Your task to perform on an android device: allow notifications from all sites in the chrome app Image 0: 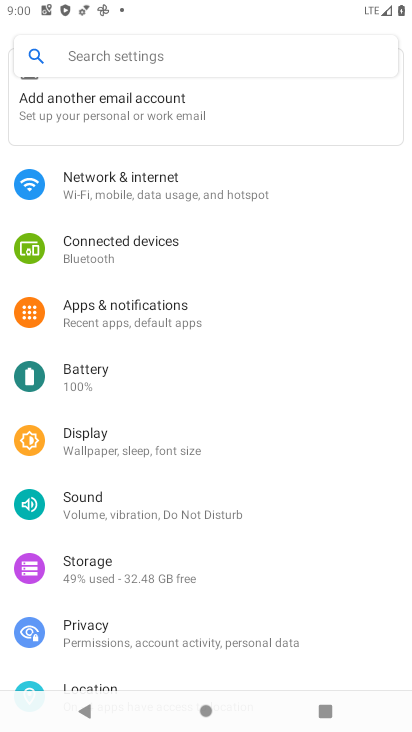
Step 0: click (167, 318)
Your task to perform on an android device: allow notifications from all sites in the chrome app Image 1: 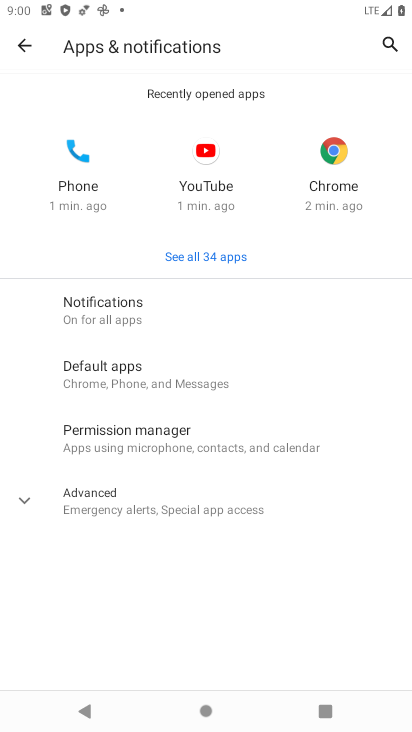
Step 1: click (336, 147)
Your task to perform on an android device: allow notifications from all sites in the chrome app Image 2: 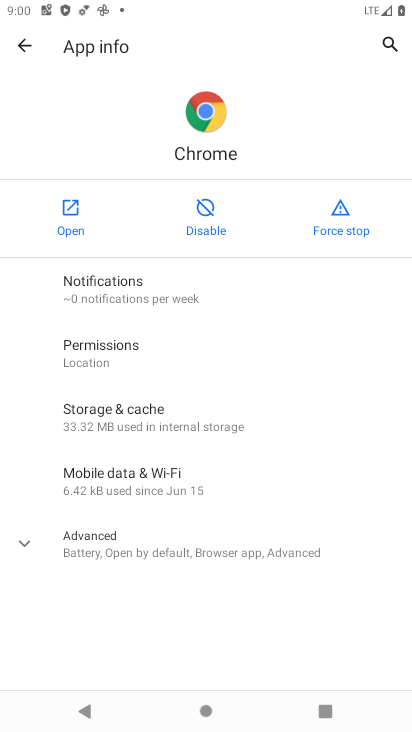
Step 2: click (246, 296)
Your task to perform on an android device: allow notifications from all sites in the chrome app Image 3: 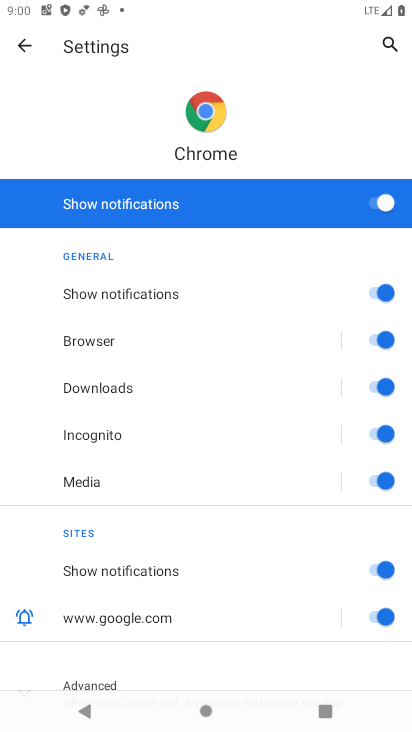
Step 3: task complete